Your task to perform on an android device: turn on airplane mode Image 0: 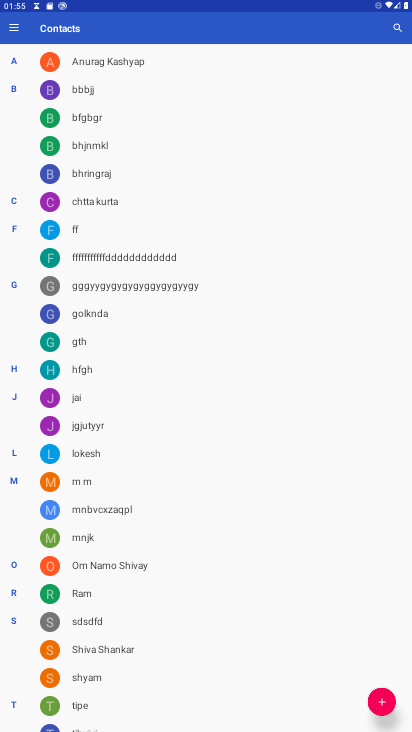
Step 0: press home button
Your task to perform on an android device: turn on airplane mode Image 1: 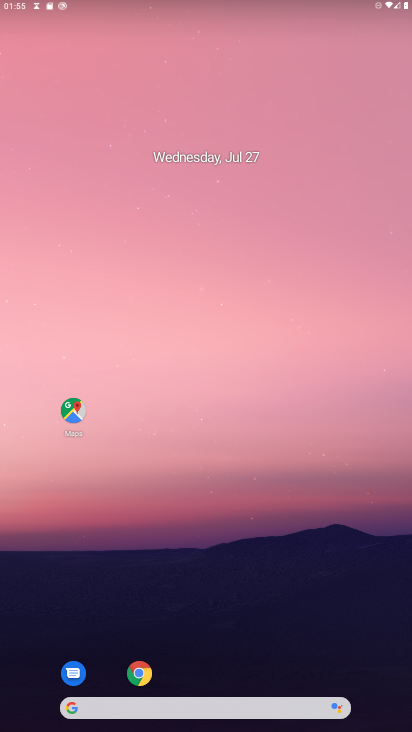
Step 1: drag from (105, 673) to (204, 285)
Your task to perform on an android device: turn on airplane mode Image 2: 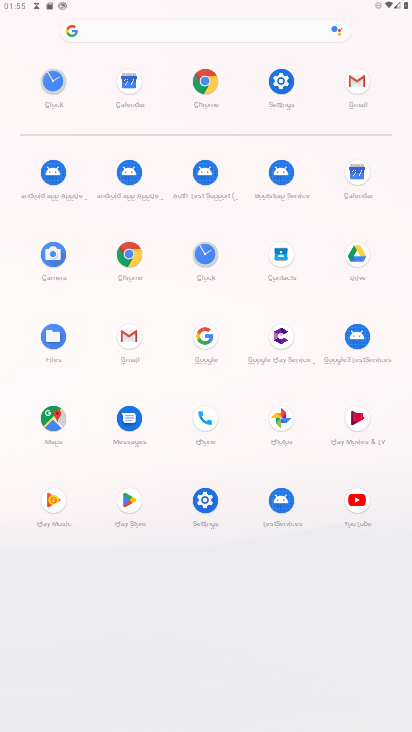
Step 2: click (278, 71)
Your task to perform on an android device: turn on airplane mode Image 3: 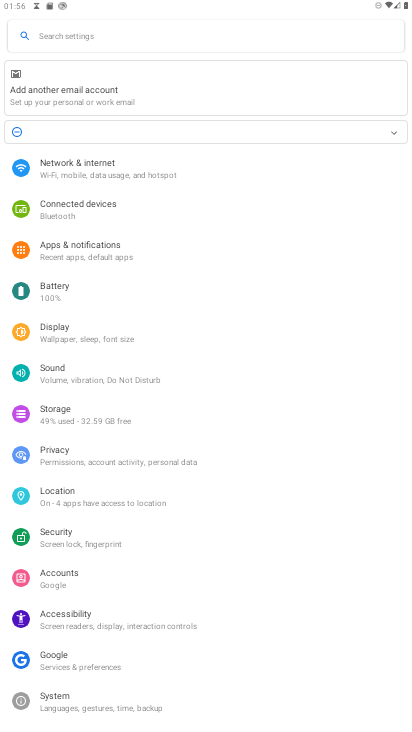
Step 3: click (109, 174)
Your task to perform on an android device: turn on airplane mode Image 4: 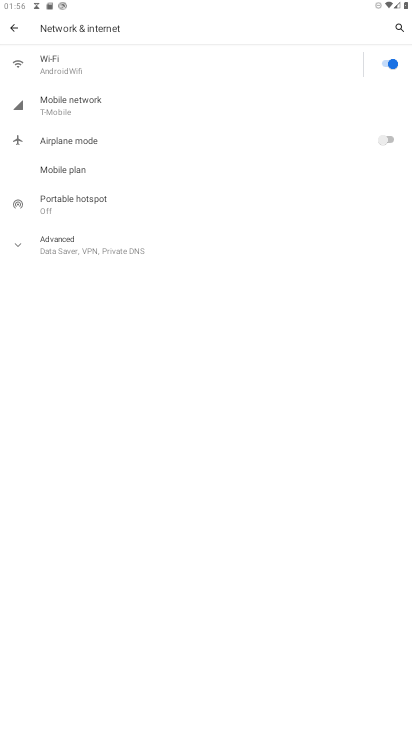
Step 4: click (378, 134)
Your task to perform on an android device: turn on airplane mode Image 5: 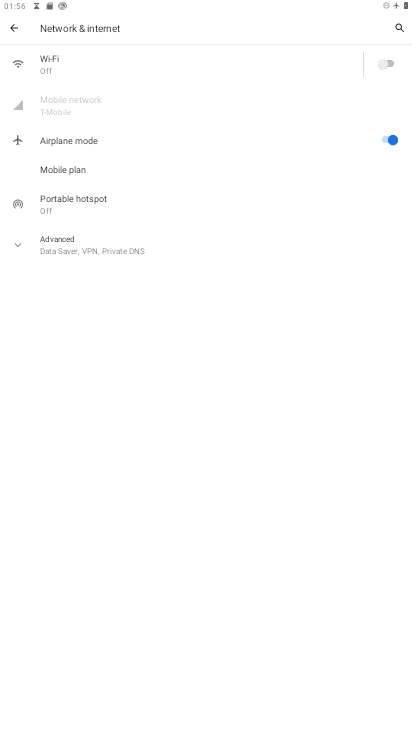
Step 5: task complete